Your task to perform on an android device: Open location settings Image 0: 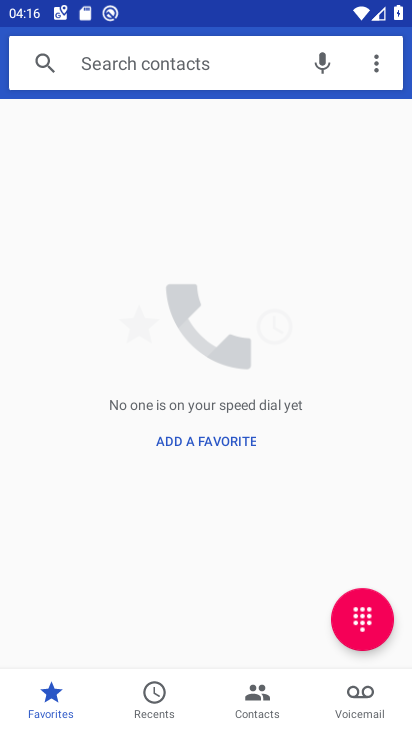
Step 0: press home button
Your task to perform on an android device: Open location settings Image 1: 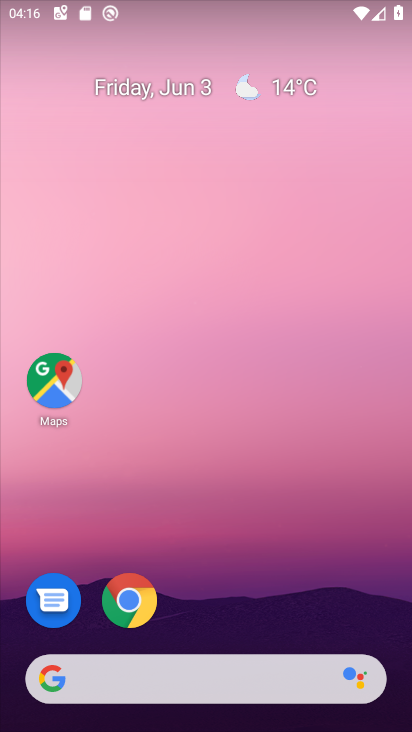
Step 1: drag from (282, 632) to (244, 213)
Your task to perform on an android device: Open location settings Image 2: 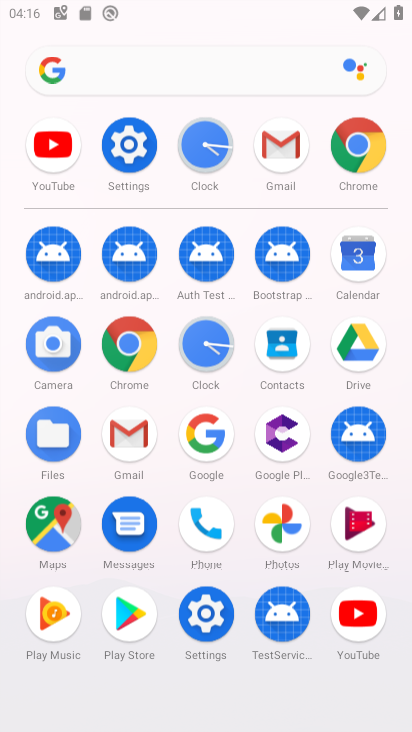
Step 2: click (119, 143)
Your task to perform on an android device: Open location settings Image 3: 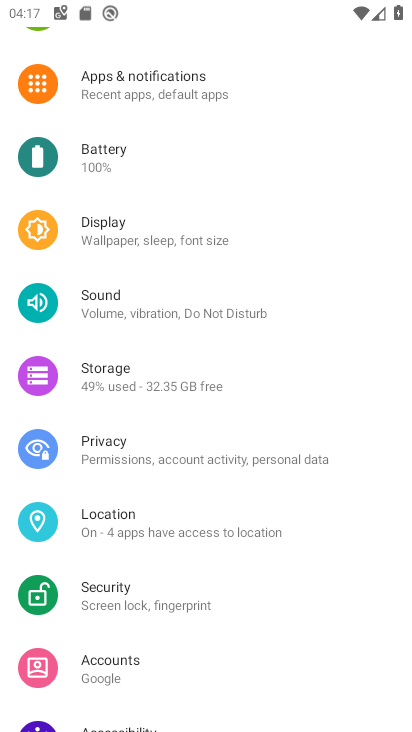
Step 3: click (198, 525)
Your task to perform on an android device: Open location settings Image 4: 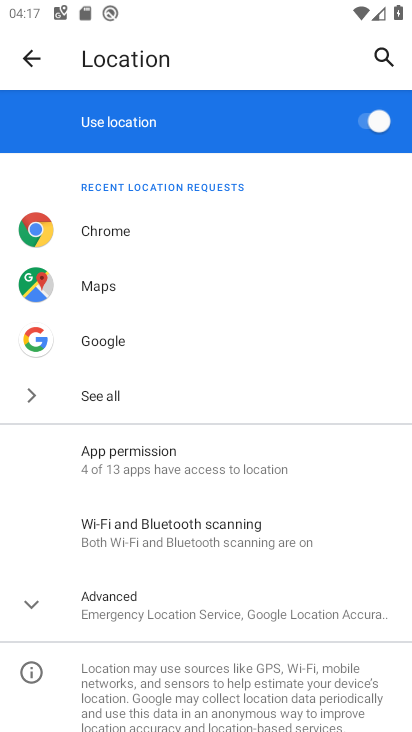
Step 4: task complete